Your task to perform on an android device: all mails in gmail Image 0: 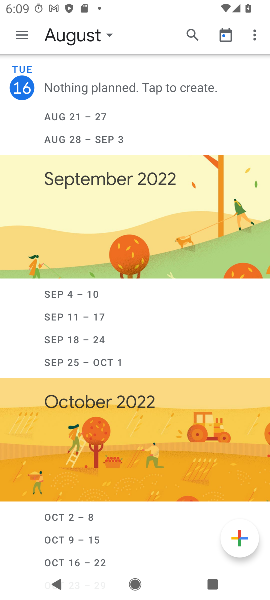
Step 0: press home button
Your task to perform on an android device: all mails in gmail Image 1: 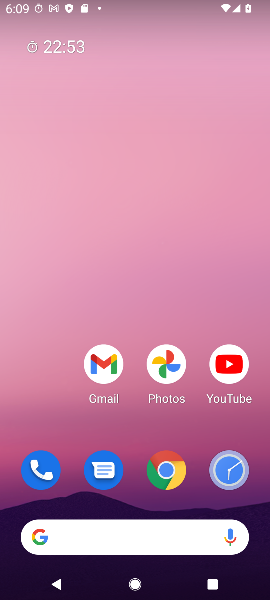
Step 1: click (107, 365)
Your task to perform on an android device: all mails in gmail Image 2: 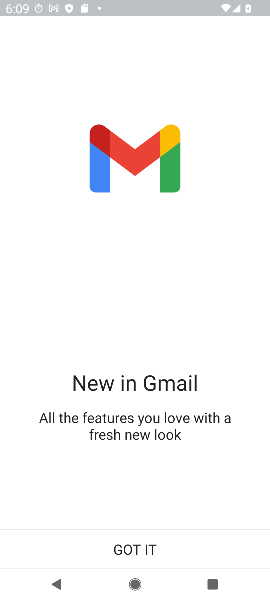
Step 2: click (113, 544)
Your task to perform on an android device: all mails in gmail Image 3: 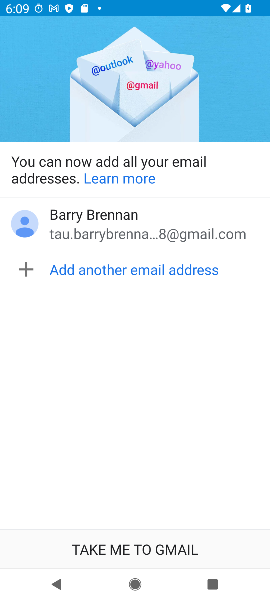
Step 3: click (132, 224)
Your task to perform on an android device: all mails in gmail Image 4: 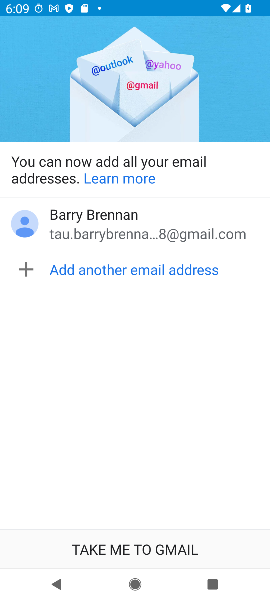
Step 4: click (127, 552)
Your task to perform on an android device: all mails in gmail Image 5: 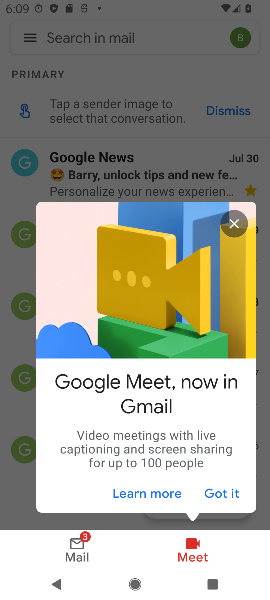
Step 5: click (232, 216)
Your task to perform on an android device: all mails in gmail Image 6: 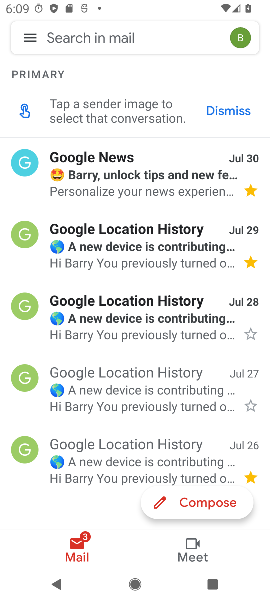
Step 6: click (35, 36)
Your task to perform on an android device: all mails in gmail Image 7: 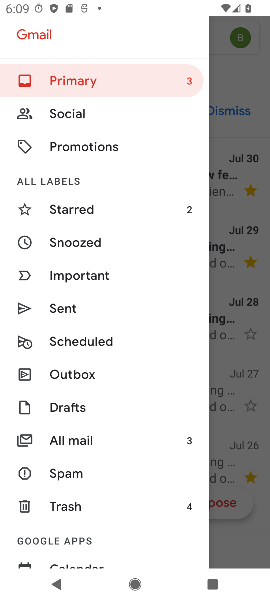
Step 7: click (85, 443)
Your task to perform on an android device: all mails in gmail Image 8: 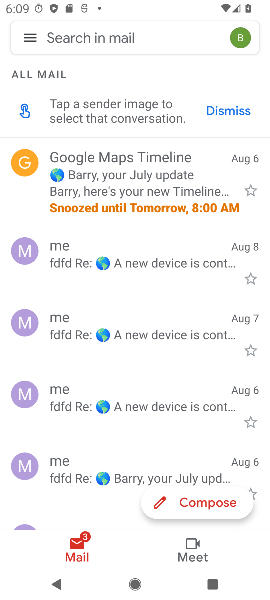
Step 8: task complete